Your task to perform on an android device: Go to internet settings Image 0: 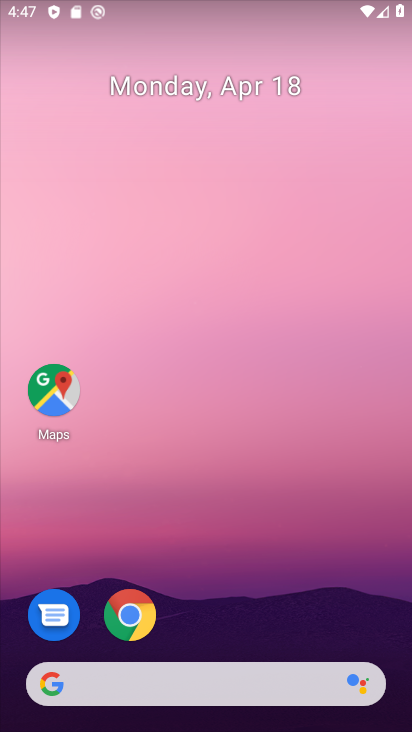
Step 0: drag from (299, 619) to (273, 32)
Your task to perform on an android device: Go to internet settings Image 1: 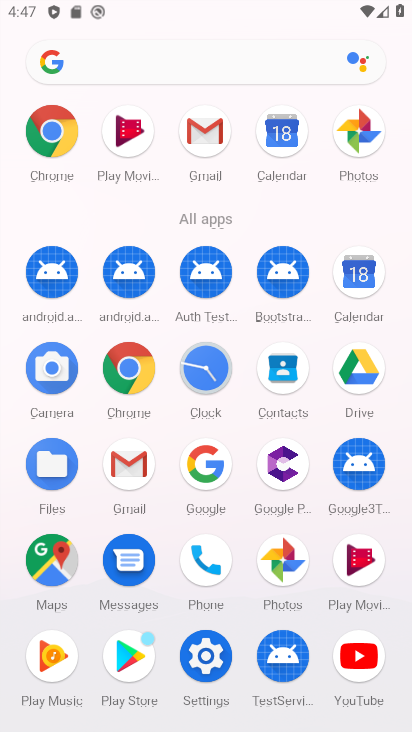
Step 1: click (203, 669)
Your task to perform on an android device: Go to internet settings Image 2: 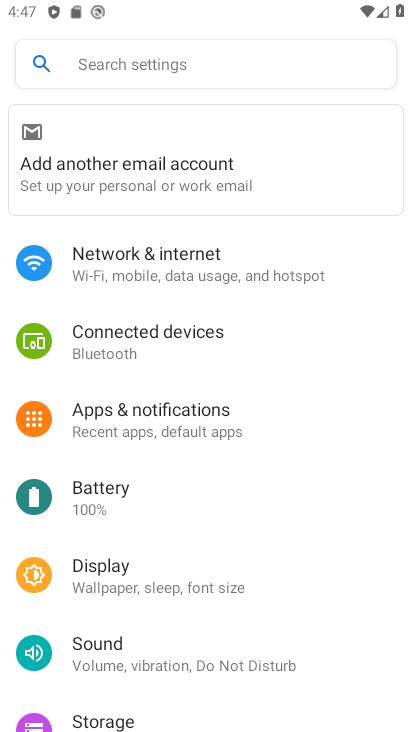
Step 2: click (154, 266)
Your task to perform on an android device: Go to internet settings Image 3: 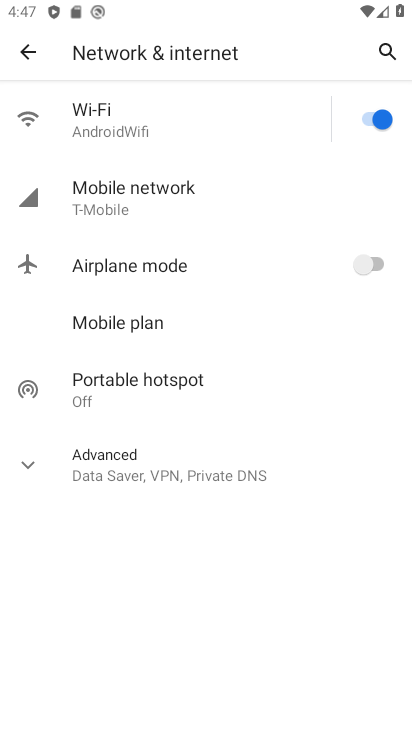
Step 3: task complete